Your task to perform on an android device: Go to display settings Image 0: 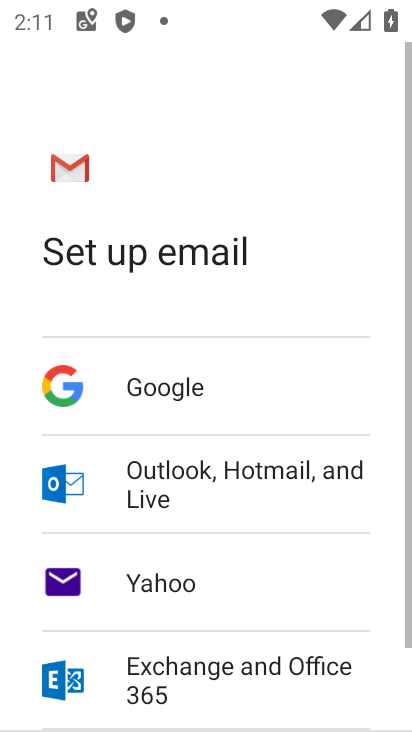
Step 0: press home button
Your task to perform on an android device: Go to display settings Image 1: 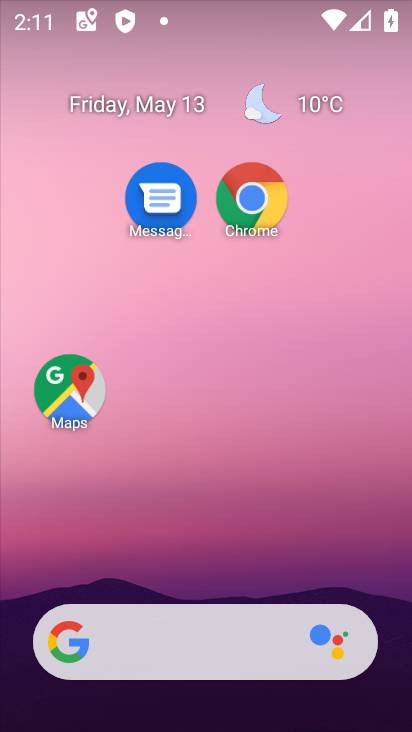
Step 1: drag from (209, 581) to (166, 94)
Your task to perform on an android device: Go to display settings Image 2: 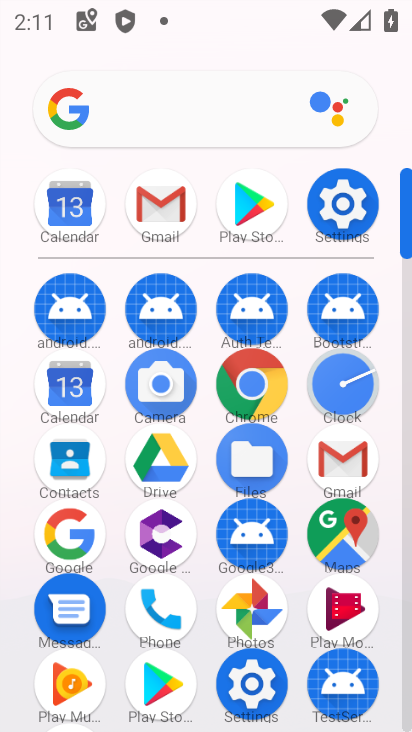
Step 2: click (355, 229)
Your task to perform on an android device: Go to display settings Image 3: 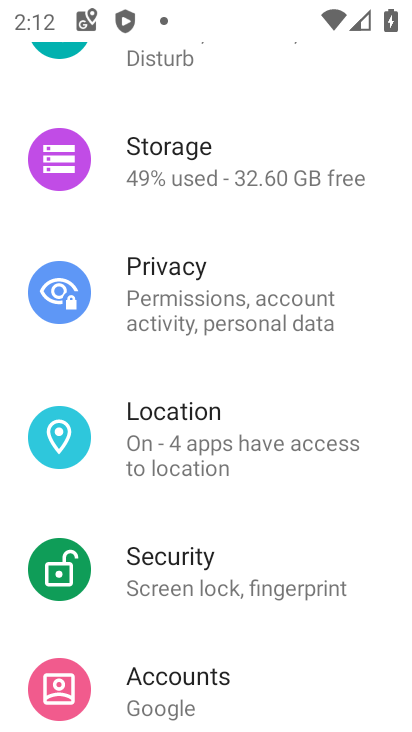
Step 3: drag from (195, 165) to (225, 452)
Your task to perform on an android device: Go to display settings Image 4: 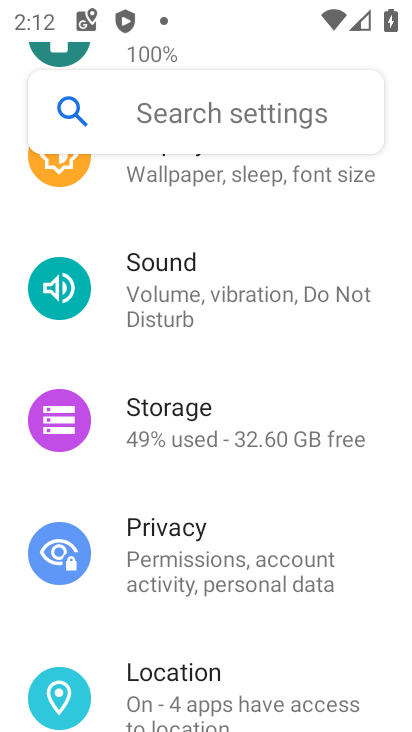
Step 4: drag from (214, 246) to (215, 489)
Your task to perform on an android device: Go to display settings Image 5: 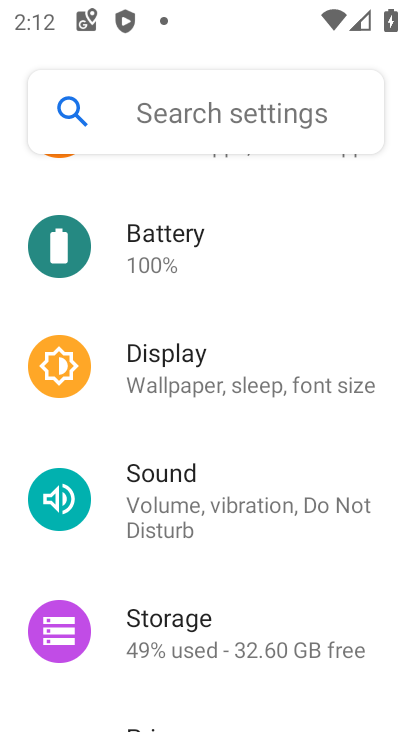
Step 5: click (195, 373)
Your task to perform on an android device: Go to display settings Image 6: 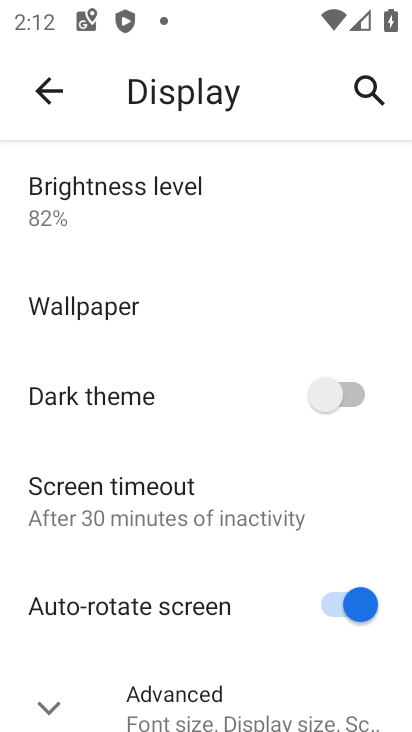
Step 6: task complete